Your task to perform on an android device: Show me the alarms in the clock app Image 0: 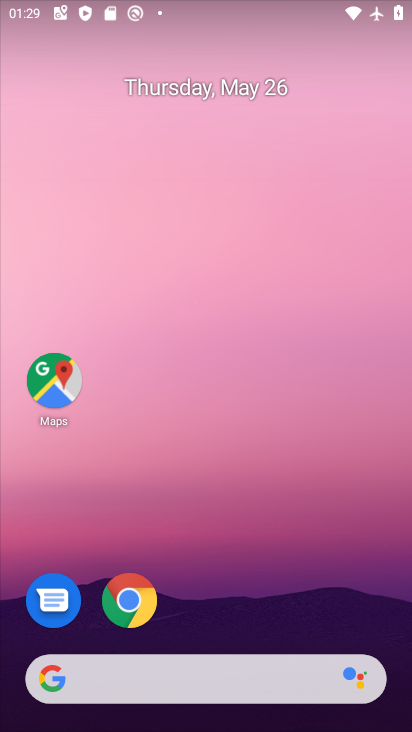
Step 0: drag from (260, 547) to (302, 95)
Your task to perform on an android device: Show me the alarms in the clock app Image 1: 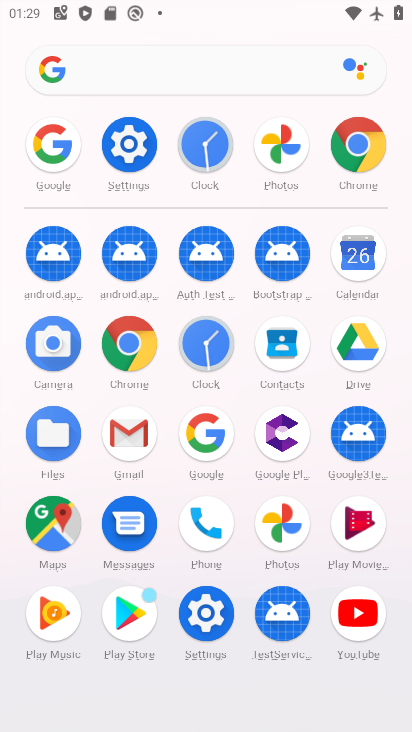
Step 1: click (202, 348)
Your task to perform on an android device: Show me the alarms in the clock app Image 2: 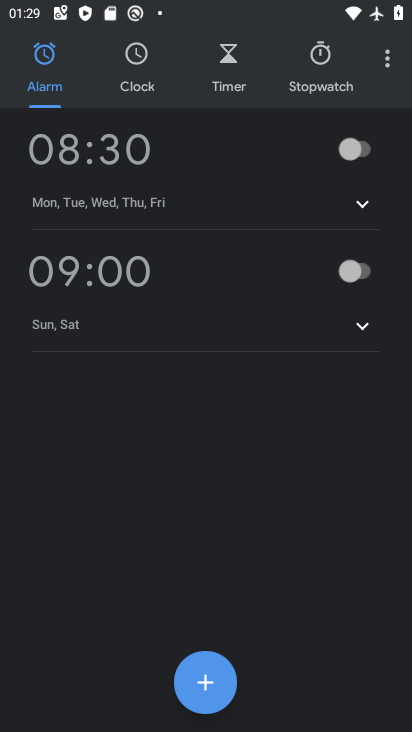
Step 2: drag from (385, 59) to (224, 454)
Your task to perform on an android device: Show me the alarms in the clock app Image 3: 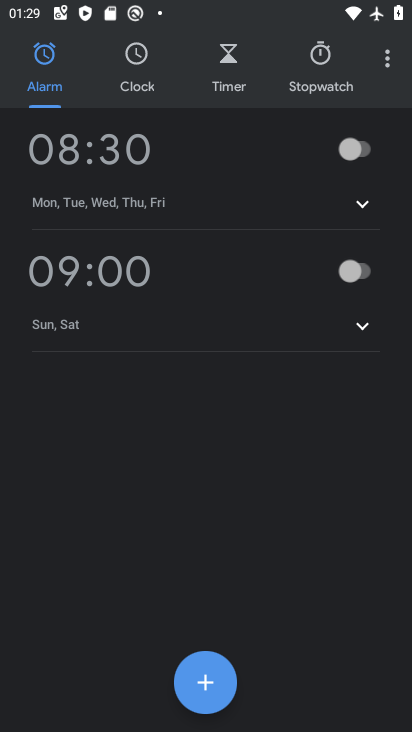
Step 3: click (224, 453)
Your task to perform on an android device: Show me the alarms in the clock app Image 4: 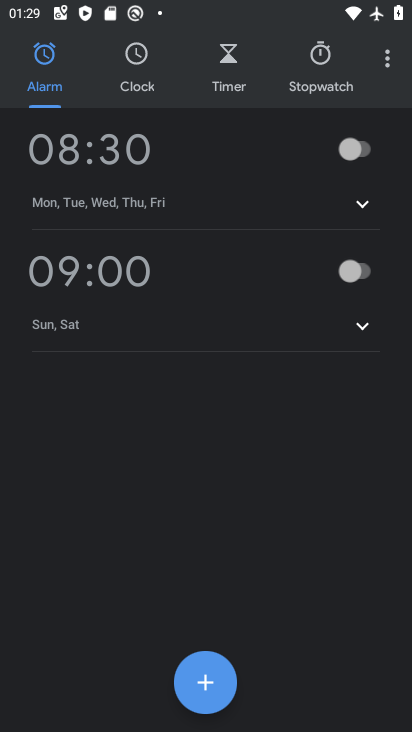
Step 4: task complete